Your task to perform on an android device: Show me popular games on the Play Store Image 0: 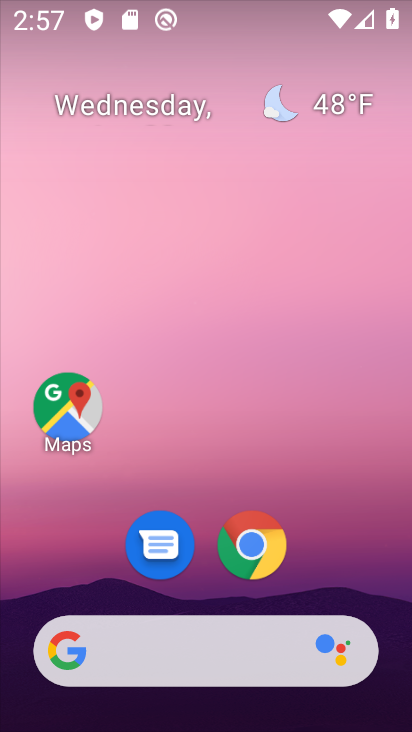
Step 0: drag from (226, 482) to (244, 227)
Your task to perform on an android device: Show me popular games on the Play Store Image 1: 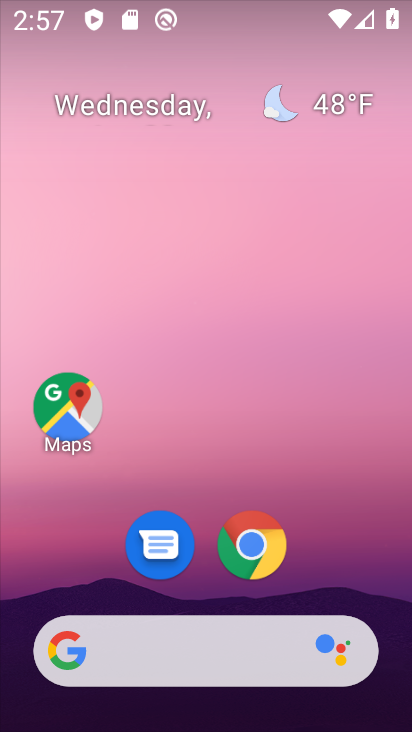
Step 1: drag from (191, 403) to (177, 194)
Your task to perform on an android device: Show me popular games on the Play Store Image 2: 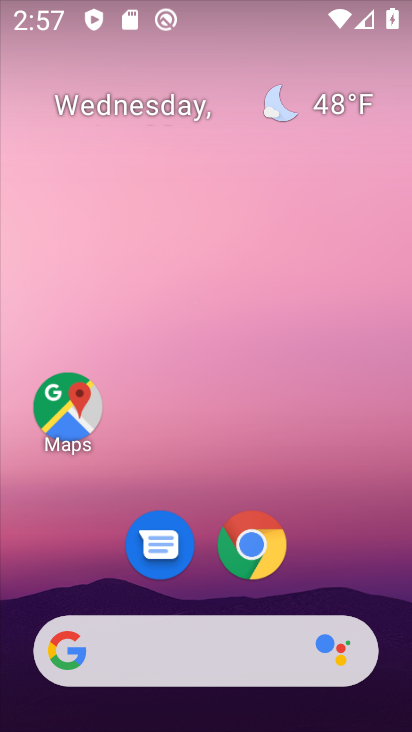
Step 2: drag from (193, 489) to (228, 183)
Your task to perform on an android device: Show me popular games on the Play Store Image 3: 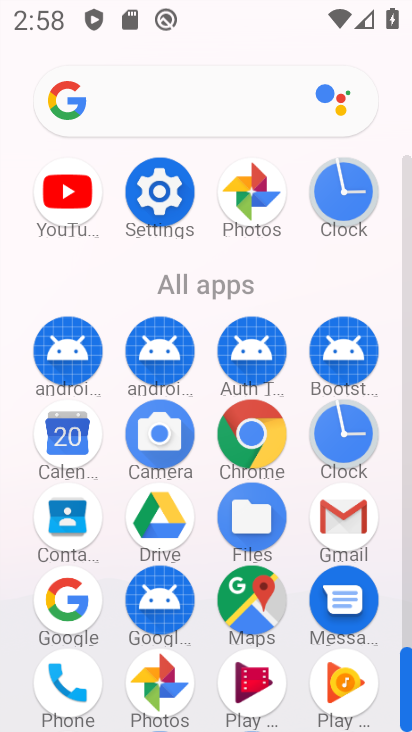
Step 3: drag from (234, 550) to (232, 214)
Your task to perform on an android device: Show me popular games on the Play Store Image 4: 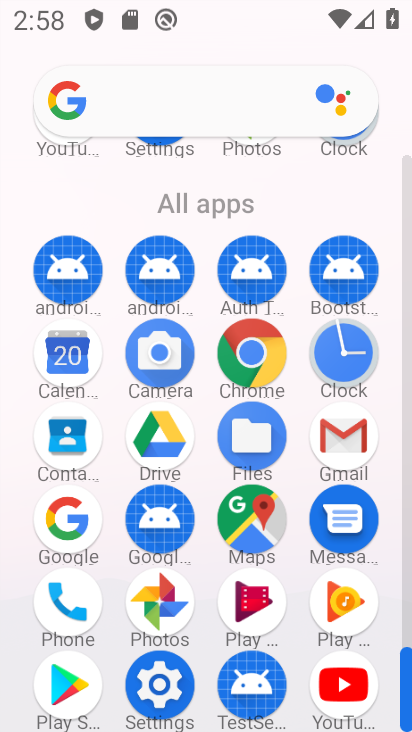
Step 4: drag from (231, 680) to (233, 292)
Your task to perform on an android device: Show me popular games on the Play Store Image 5: 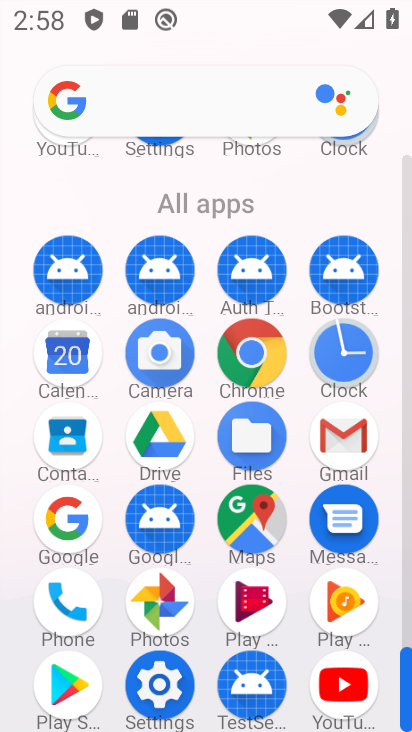
Step 5: click (81, 665)
Your task to perform on an android device: Show me popular games on the Play Store Image 6: 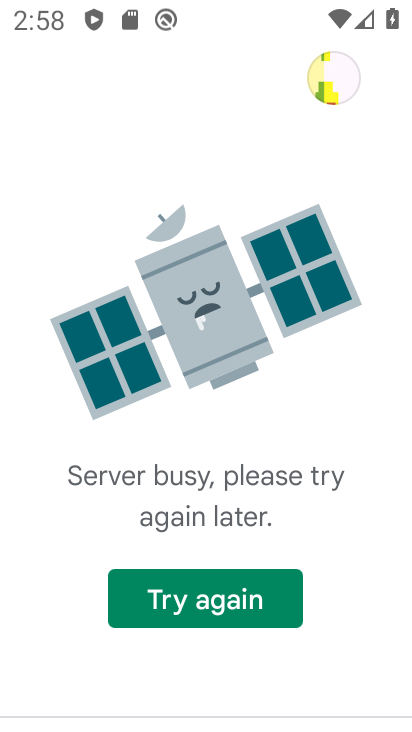
Step 6: task complete